Your task to perform on an android device: change alarm snooze length Image 0: 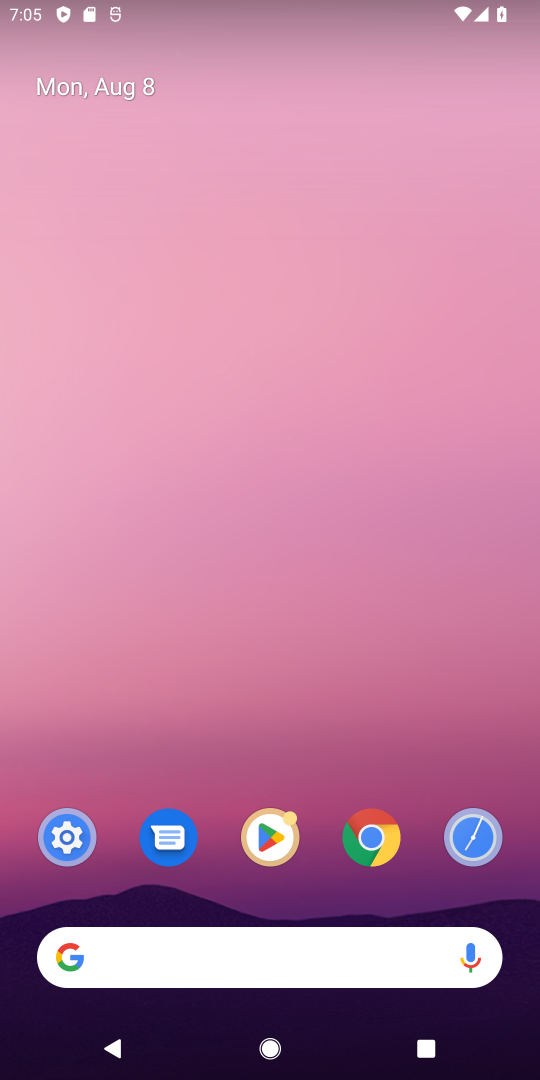
Step 0: drag from (302, 935) to (397, 88)
Your task to perform on an android device: change alarm snooze length Image 1: 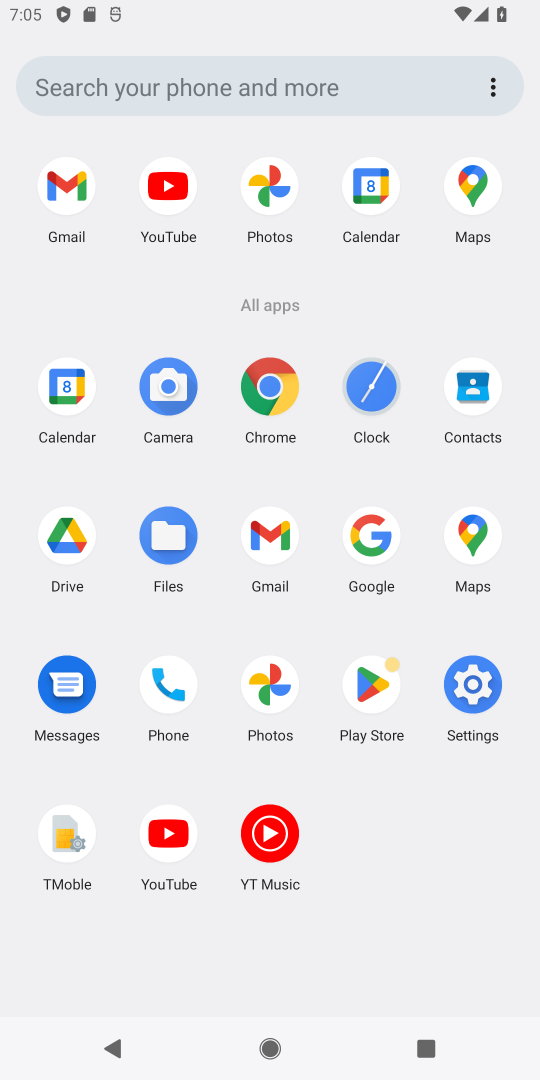
Step 1: click (358, 397)
Your task to perform on an android device: change alarm snooze length Image 2: 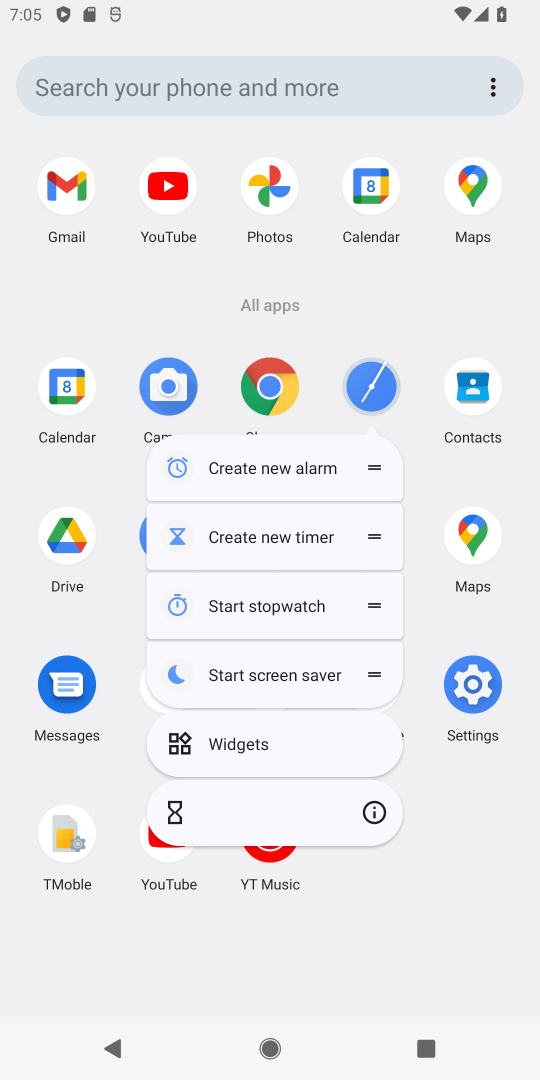
Step 2: click (390, 394)
Your task to perform on an android device: change alarm snooze length Image 3: 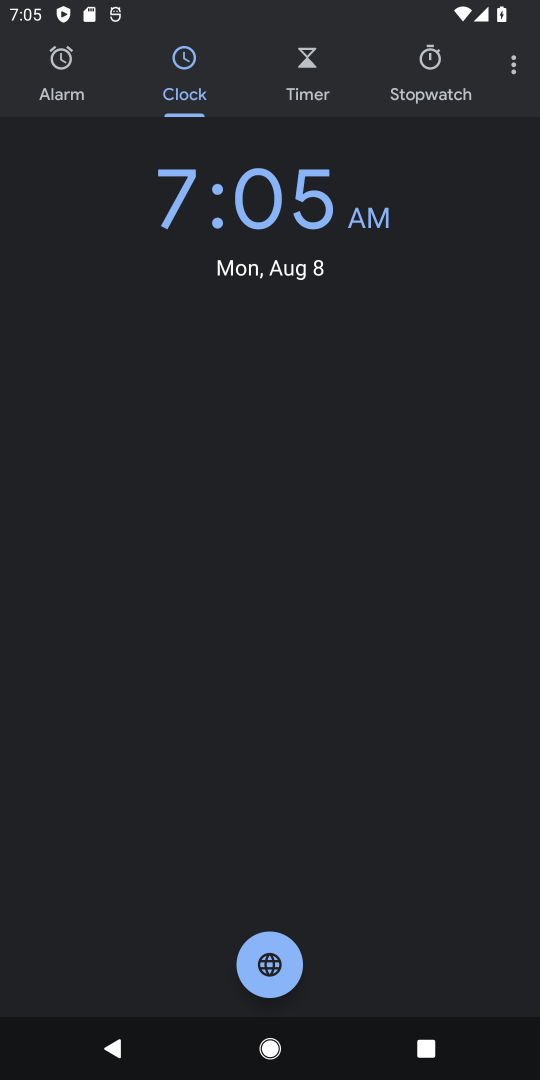
Step 3: click (525, 72)
Your task to perform on an android device: change alarm snooze length Image 4: 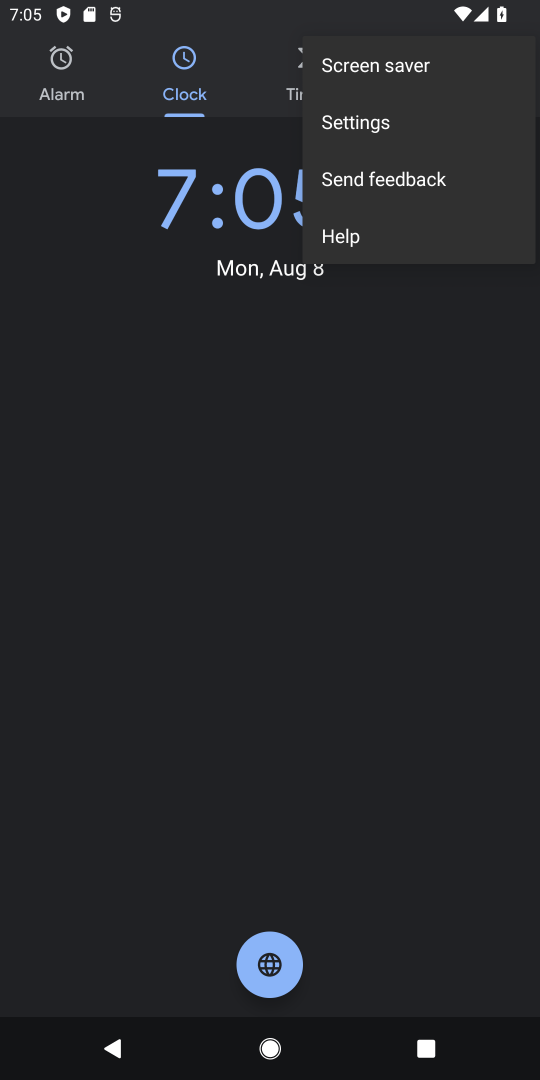
Step 4: click (418, 113)
Your task to perform on an android device: change alarm snooze length Image 5: 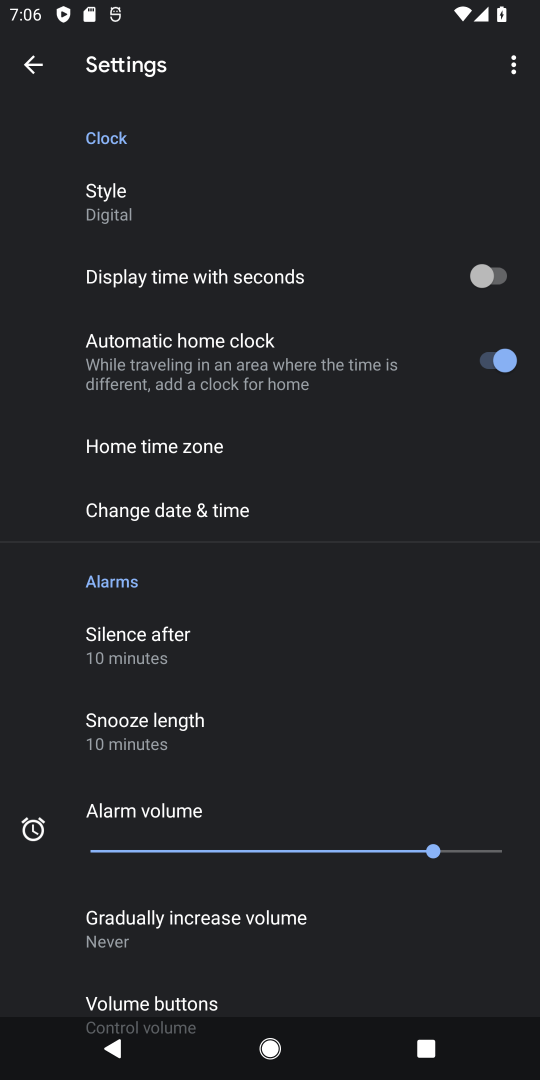
Step 5: click (189, 719)
Your task to perform on an android device: change alarm snooze length Image 6: 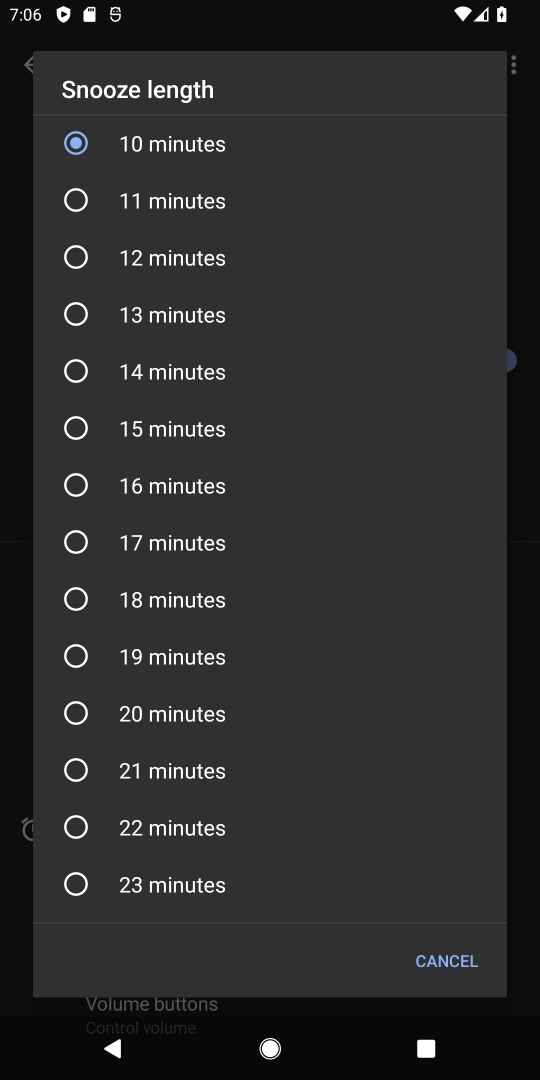
Step 6: click (124, 595)
Your task to perform on an android device: change alarm snooze length Image 7: 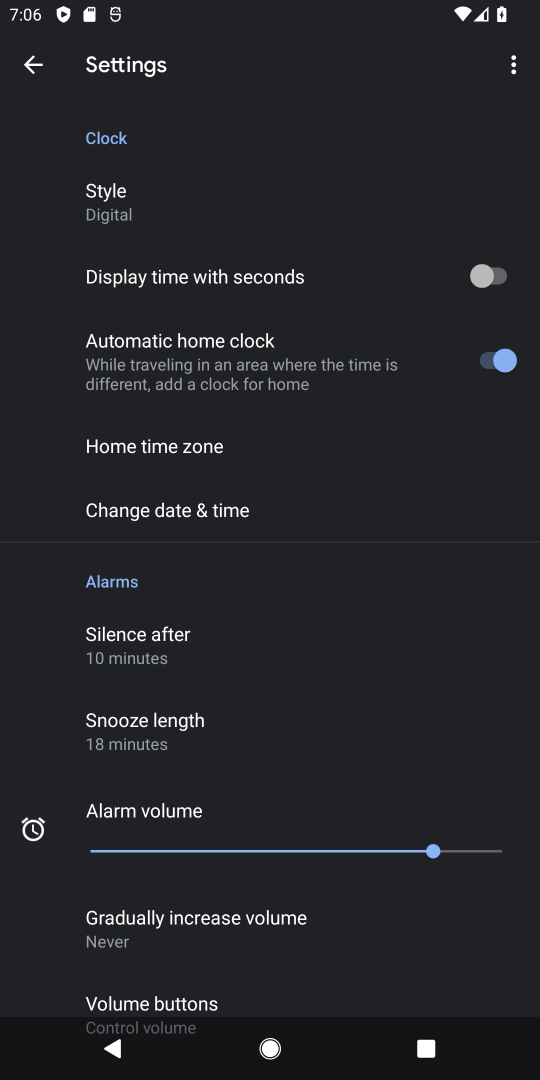
Step 7: task complete